Your task to perform on an android device: Turn on the flashlight Image 0: 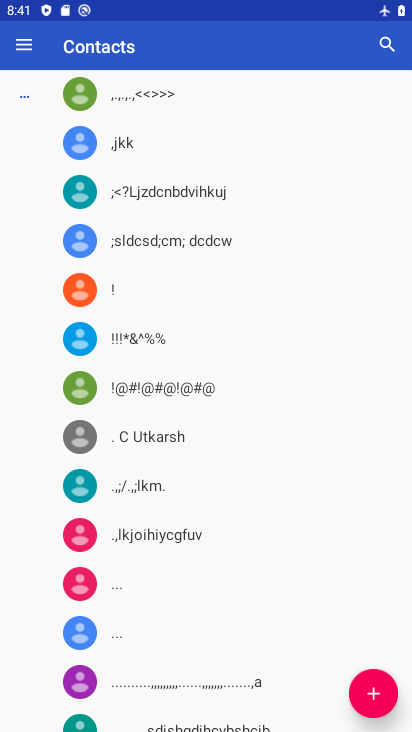
Step 0: press home button
Your task to perform on an android device: Turn on the flashlight Image 1: 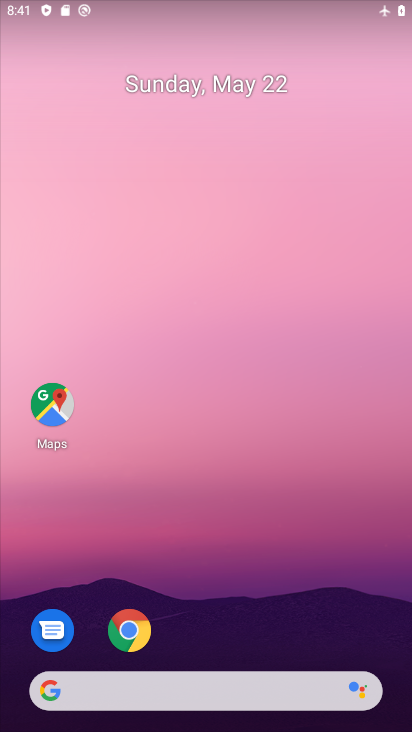
Step 1: drag from (399, 585) to (351, 91)
Your task to perform on an android device: Turn on the flashlight Image 2: 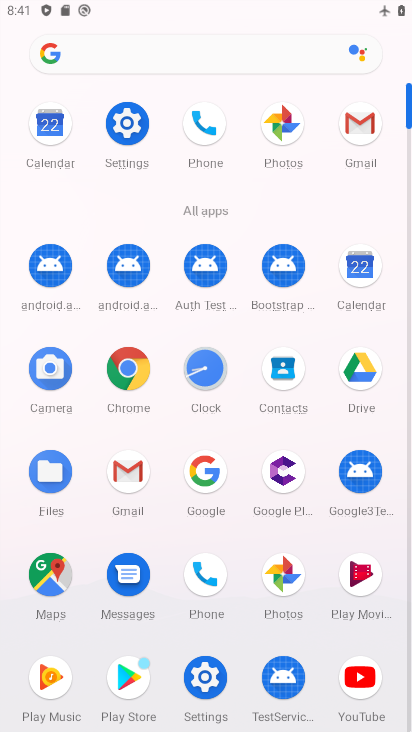
Step 2: click (129, 115)
Your task to perform on an android device: Turn on the flashlight Image 3: 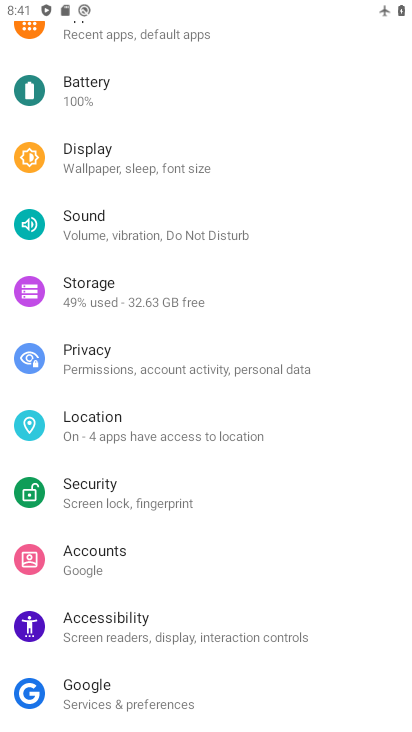
Step 3: drag from (304, 278) to (333, 523)
Your task to perform on an android device: Turn on the flashlight Image 4: 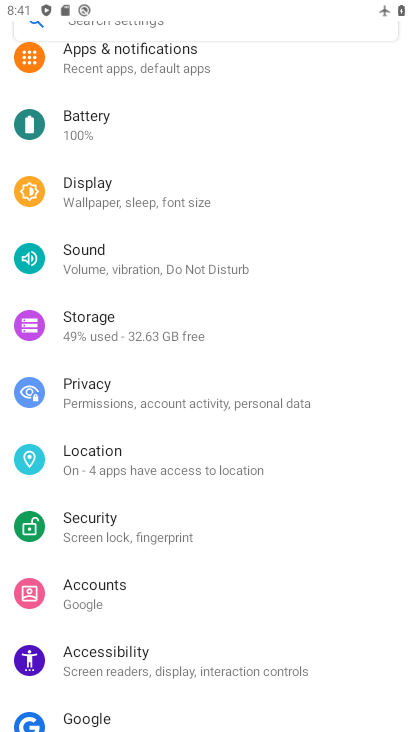
Step 4: drag from (326, 91) to (350, 553)
Your task to perform on an android device: Turn on the flashlight Image 5: 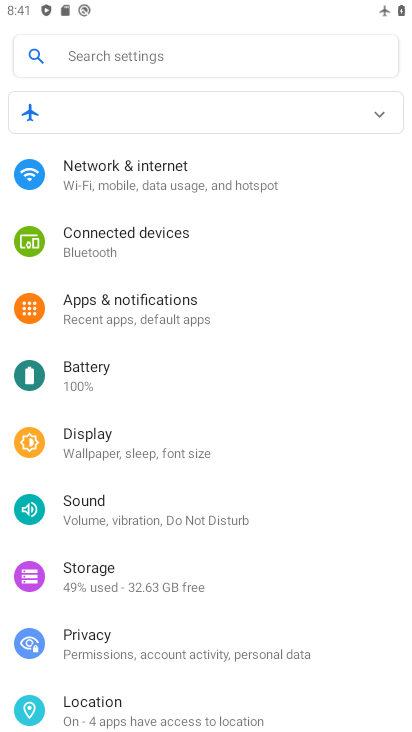
Step 5: click (91, 180)
Your task to perform on an android device: Turn on the flashlight Image 6: 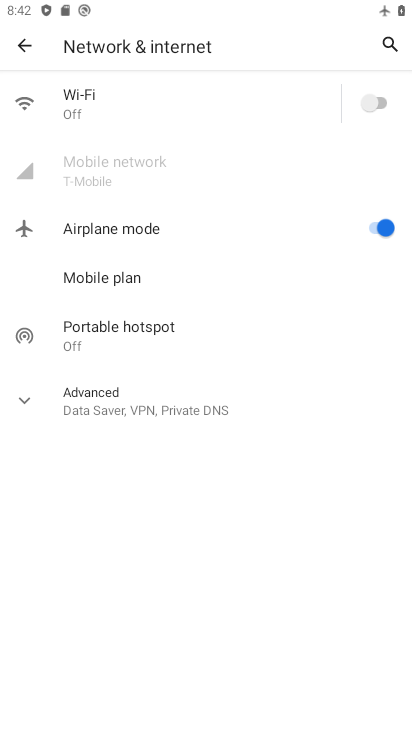
Step 6: click (371, 221)
Your task to perform on an android device: Turn on the flashlight Image 7: 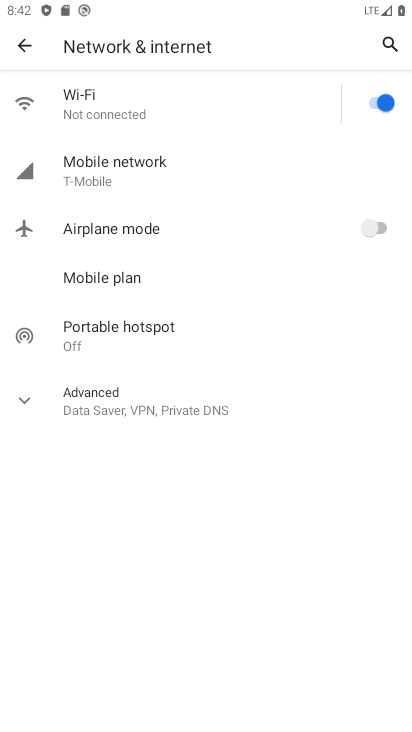
Step 7: click (31, 49)
Your task to perform on an android device: Turn on the flashlight Image 8: 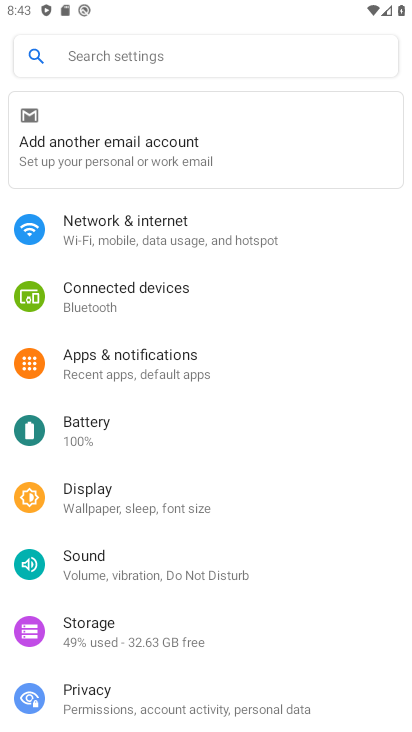
Step 8: click (92, 488)
Your task to perform on an android device: Turn on the flashlight Image 9: 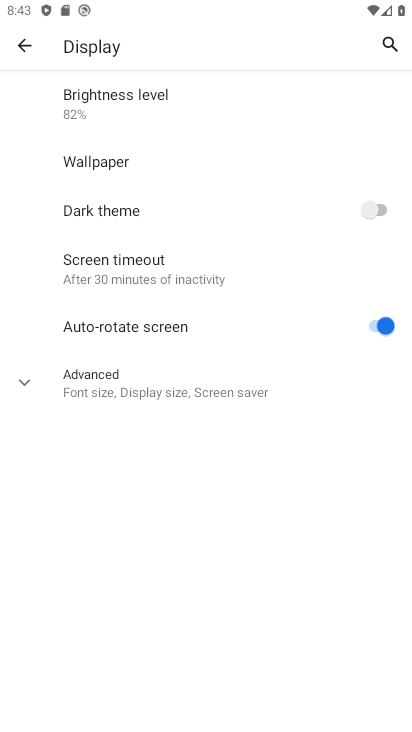
Step 9: task complete